Your task to perform on an android device: Show me recent news Image 0: 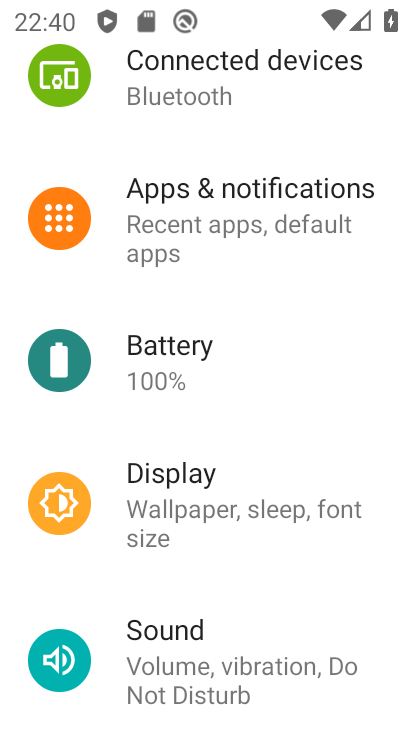
Step 0: press home button
Your task to perform on an android device: Show me recent news Image 1: 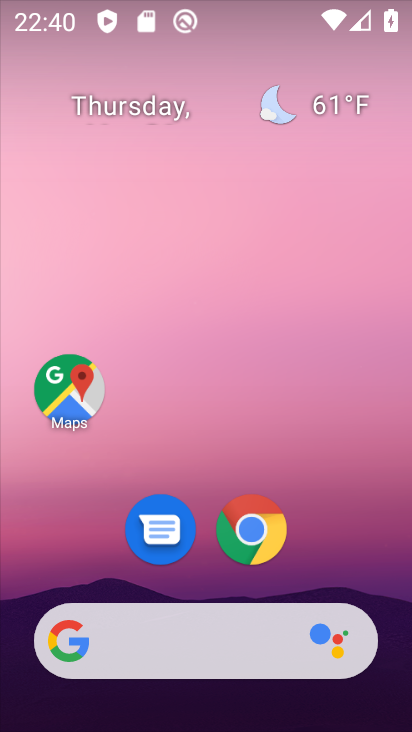
Step 1: click (234, 636)
Your task to perform on an android device: Show me recent news Image 2: 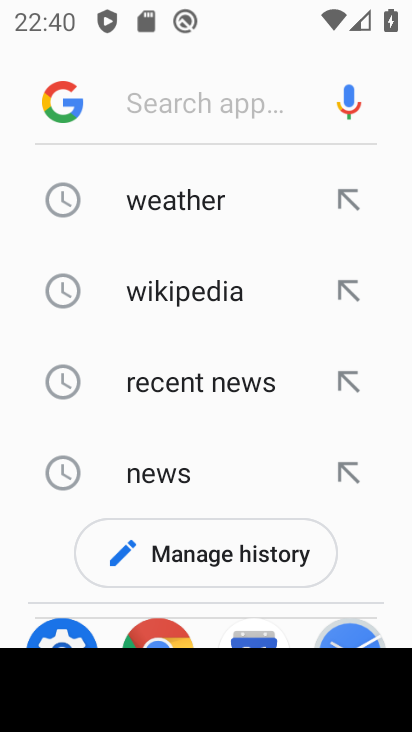
Step 2: click (189, 367)
Your task to perform on an android device: Show me recent news Image 3: 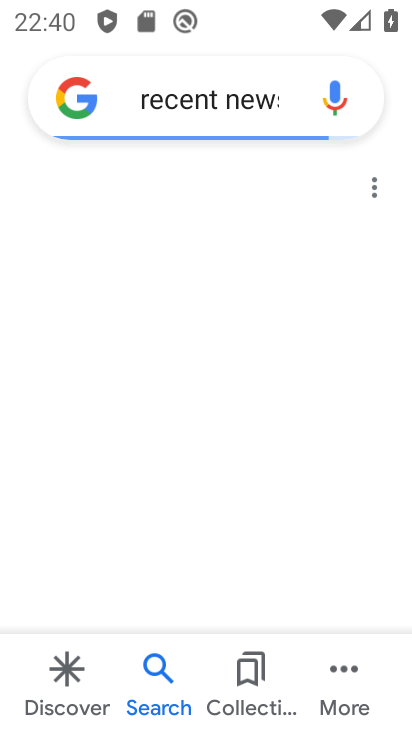
Step 3: task complete